Your task to perform on an android device: Open Google Image 0: 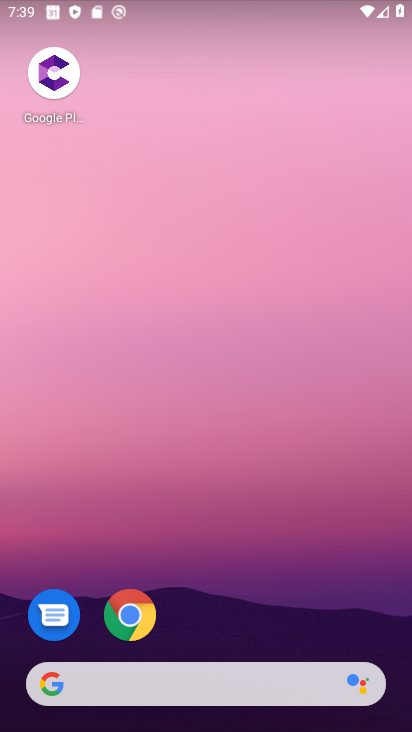
Step 0: drag from (268, 625) to (242, 130)
Your task to perform on an android device: Open Google Image 1: 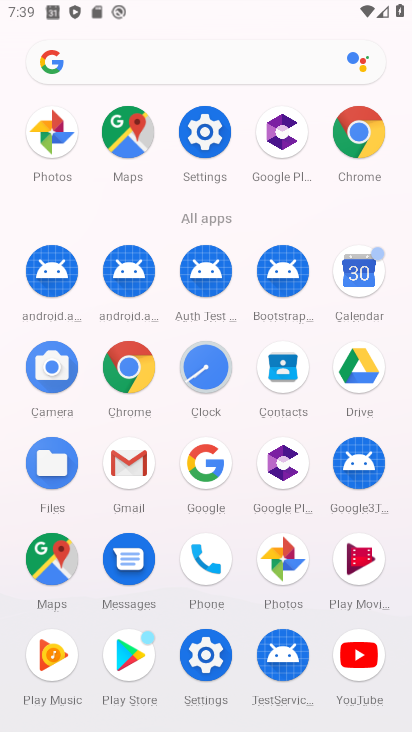
Step 1: click (222, 478)
Your task to perform on an android device: Open Google Image 2: 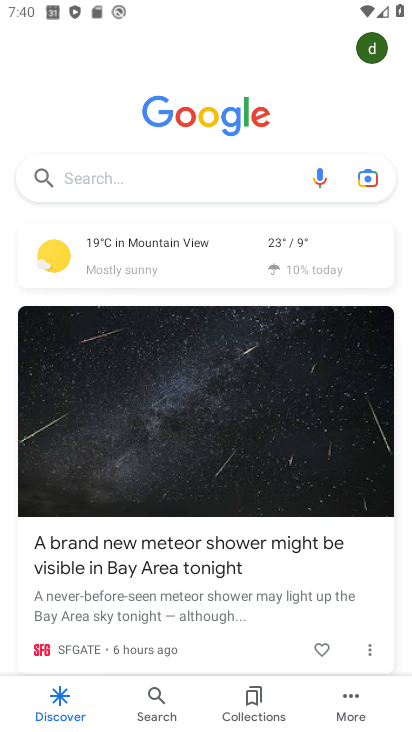
Step 2: task complete